Your task to perform on an android device: Go to network settings Image 0: 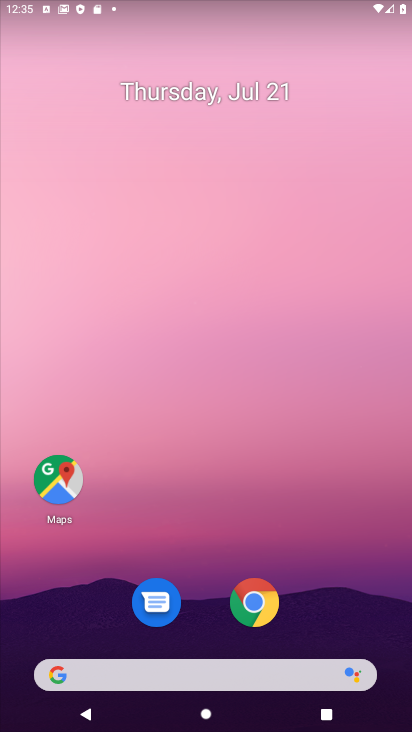
Step 0: drag from (382, 616) to (238, 70)
Your task to perform on an android device: Go to network settings Image 1: 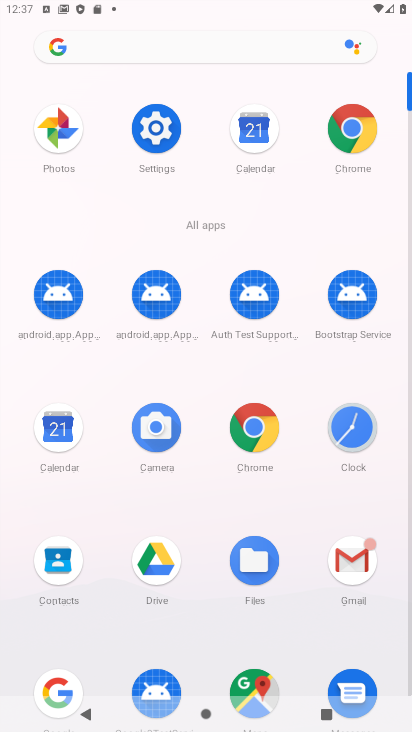
Step 1: click (153, 142)
Your task to perform on an android device: Go to network settings Image 2: 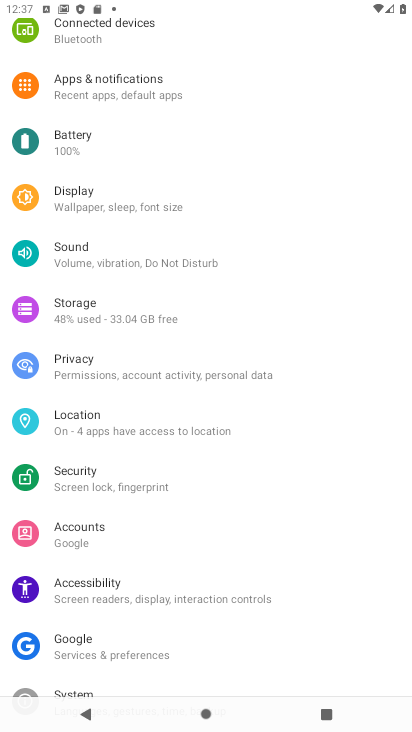
Step 2: drag from (150, 106) to (254, 623)
Your task to perform on an android device: Go to network settings Image 3: 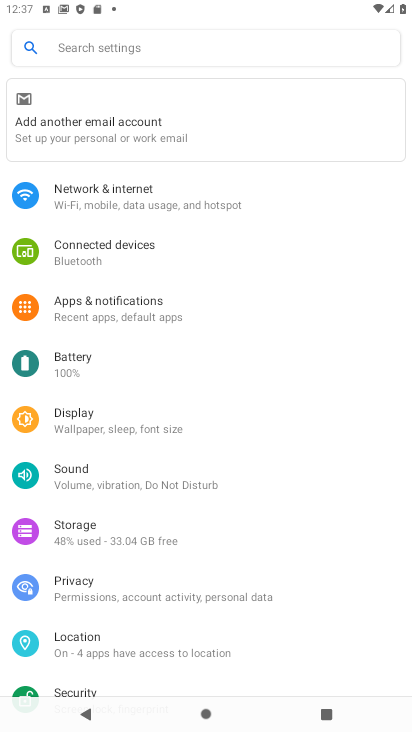
Step 3: click (129, 184)
Your task to perform on an android device: Go to network settings Image 4: 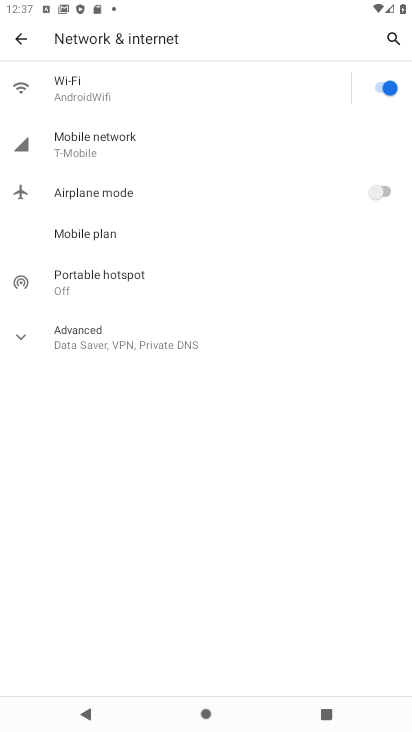
Step 4: task complete